Your task to perform on an android device: Open settings on Google Maps Image 0: 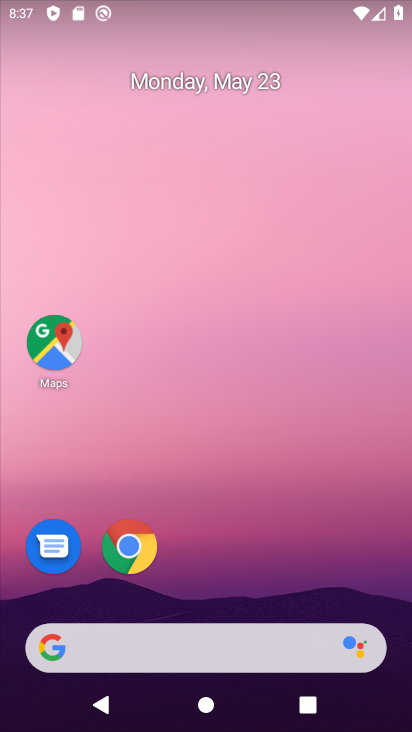
Step 0: drag from (378, 569) to (314, 181)
Your task to perform on an android device: Open settings on Google Maps Image 1: 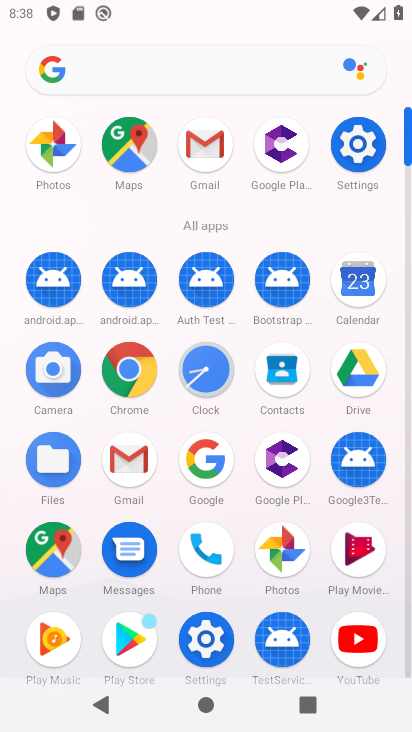
Step 1: click (60, 554)
Your task to perform on an android device: Open settings on Google Maps Image 2: 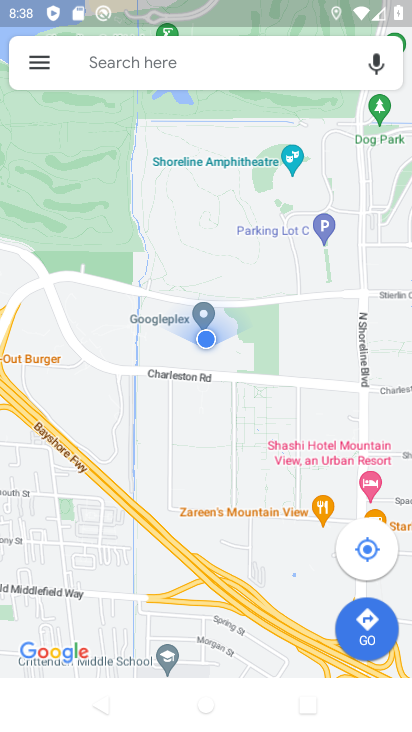
Step 2: click (40, 58)
Your task to perform on an android device: Open settings on Google Maps Image 3: 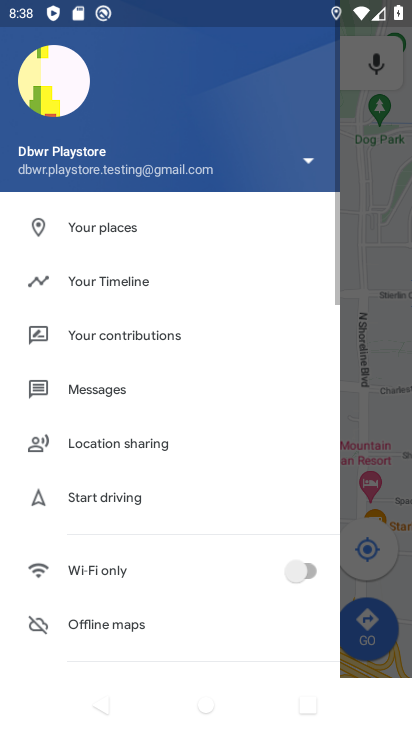
Step 3: drag from (122, 566) to (171, 224)
Your task to perform on an android device: Open settings on Google Maps Image 4: 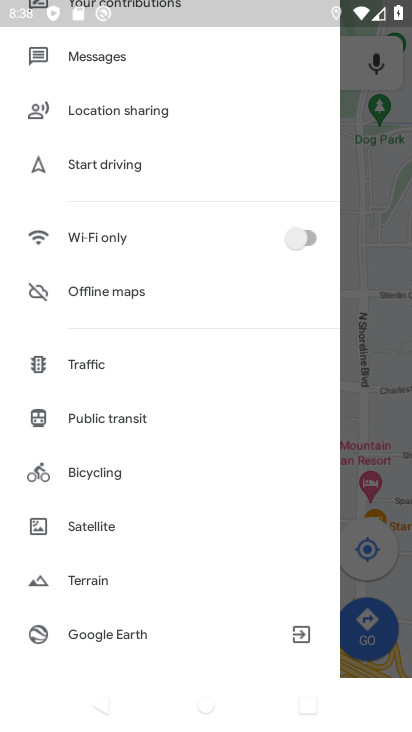
Step 4: drag from (157, 582) to (169, 239)
Your task to perform on an android device: Open settings on Google Maps Image 5: 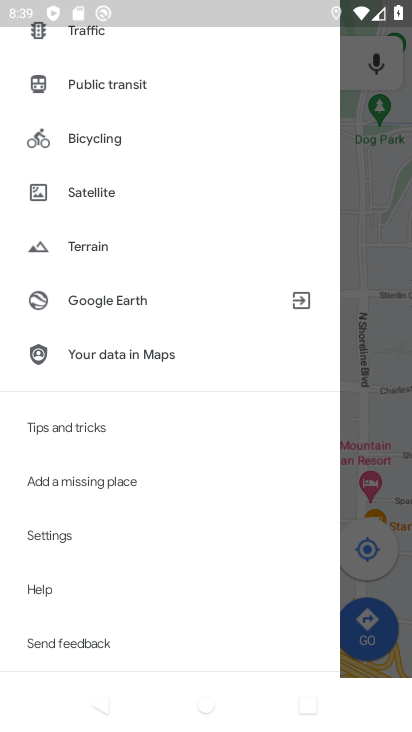
Step 5: click (60, 537)
Your task to perform on an android device: Open settings on Google Maps Image 6: 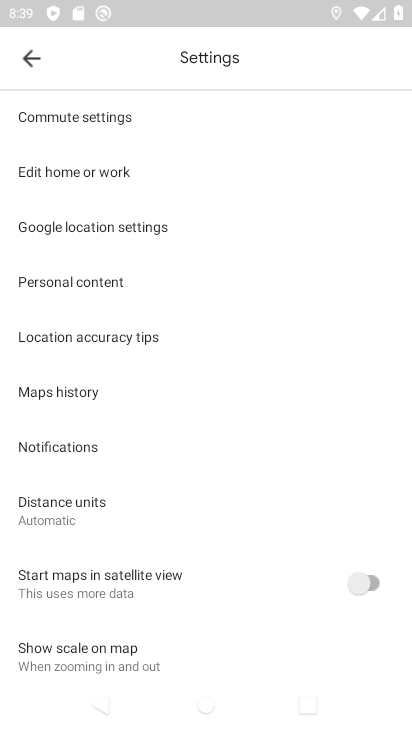
Step 6: task complete